Your task to perform on an android device: clear history in the chrome app Image 0: 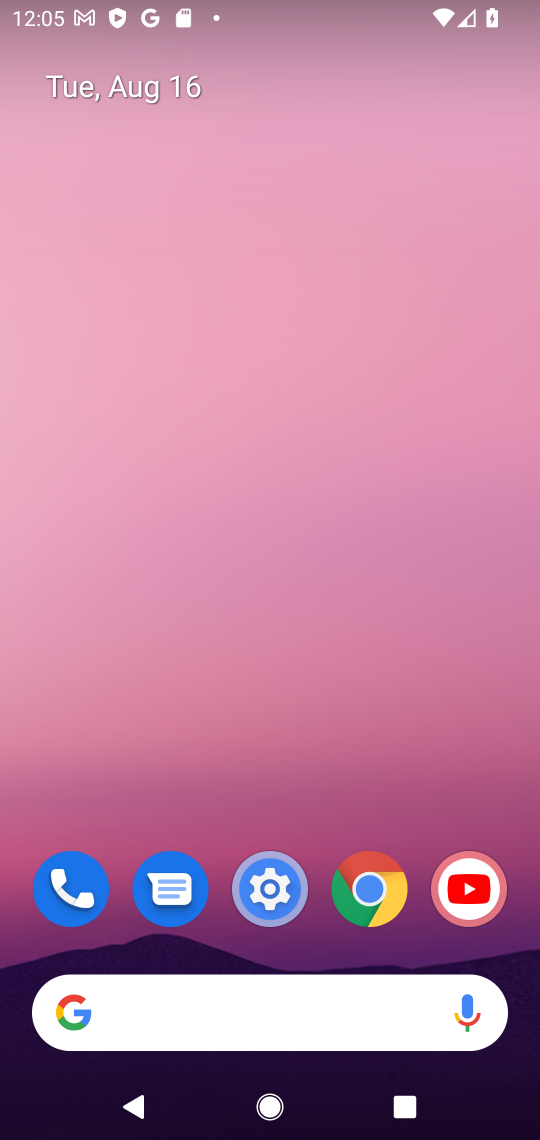
Step 0: click (86, 17)
Your task to perform on an android device: clear history in the chrome app Image 1: 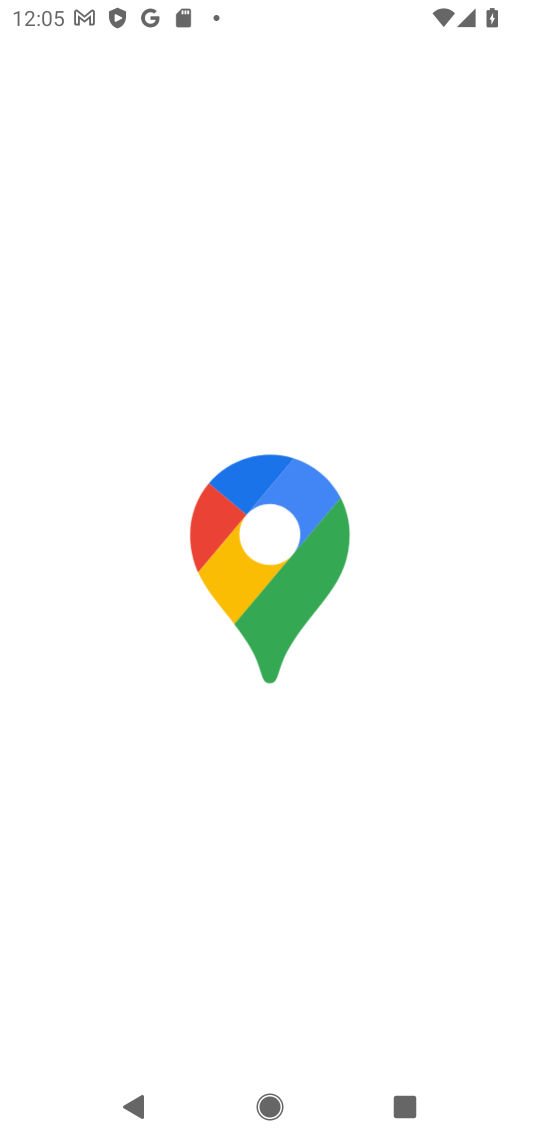
Step 1: press home button
Your task to perform on an android device: clear history in the chrome app Image 2: 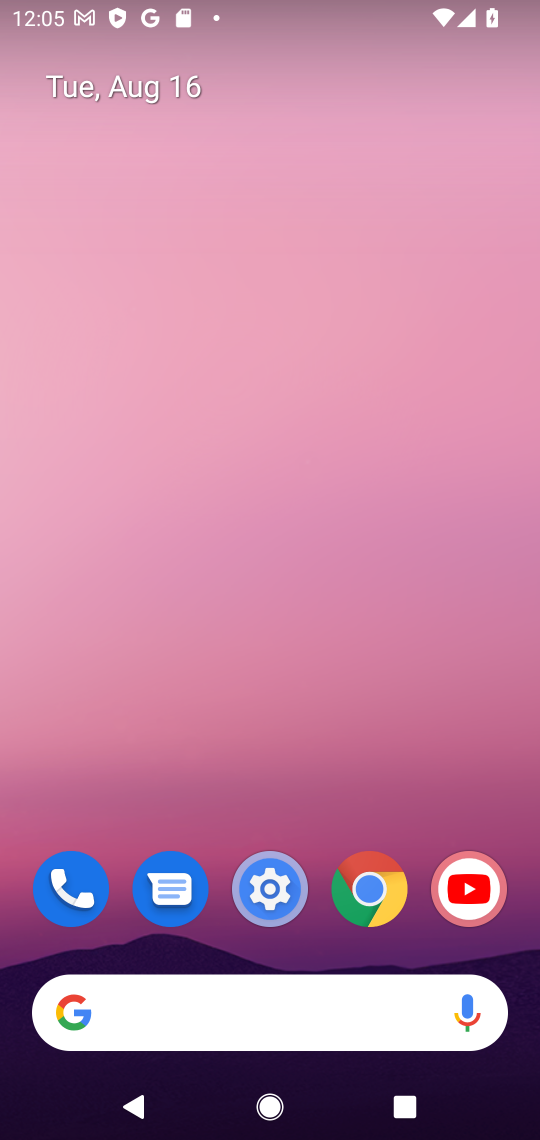
Step 2: drag from (166, 912) to (69, 1)
Your task to perform on an android device: clear history in the chrome app Image 3: 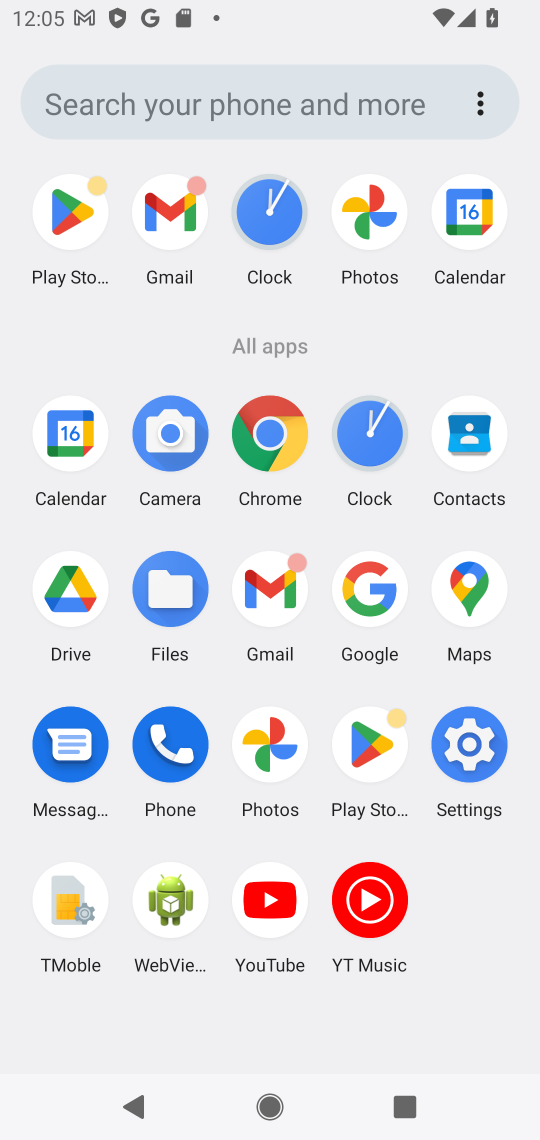
Step 3: click (266, 435)
Your task to perform on an android device: clear history in the chrome app Image 4: 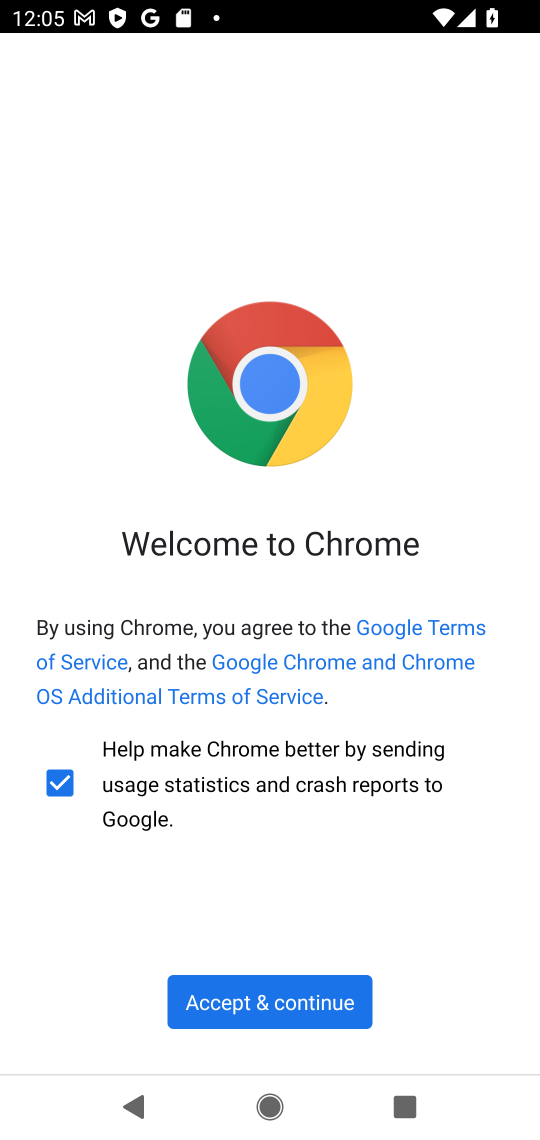
Step 4: click (324, 1003)
Your task to perform on an android device: clear history in the chrome app Image 5: 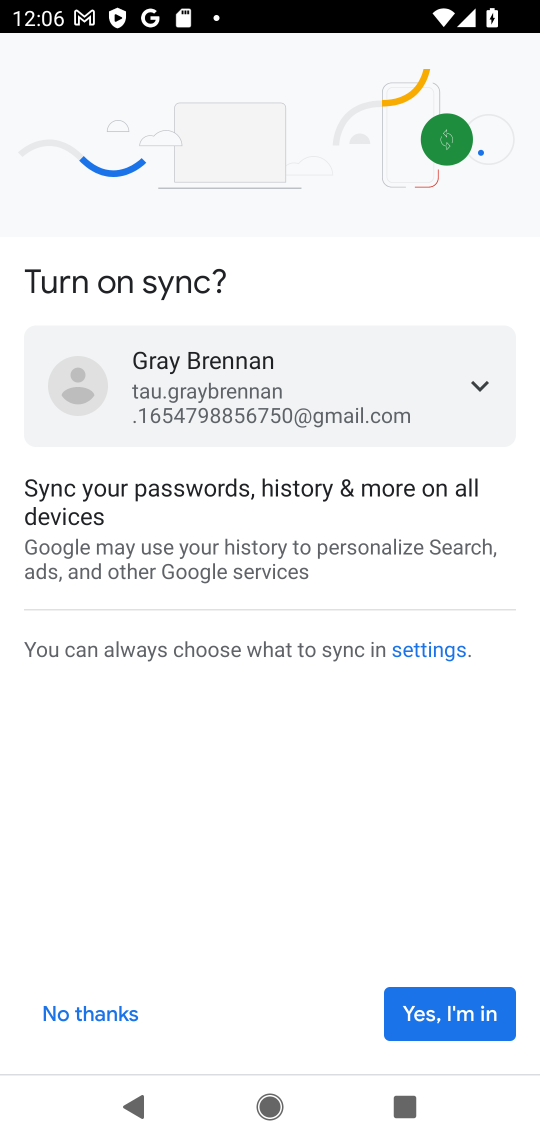
Step 5: click (118, 1016)
Your task to perform on an android device: clear history in the chrome app Image 6: 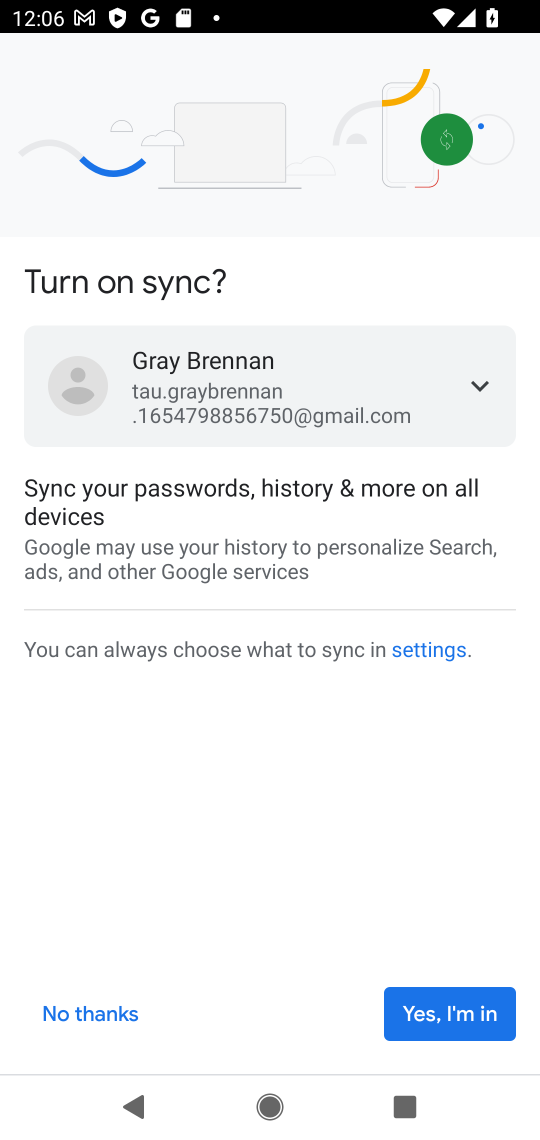
Step 6: click (124, 1017)
Your task to perform on an android device: clear history in the chrome app Image 7: 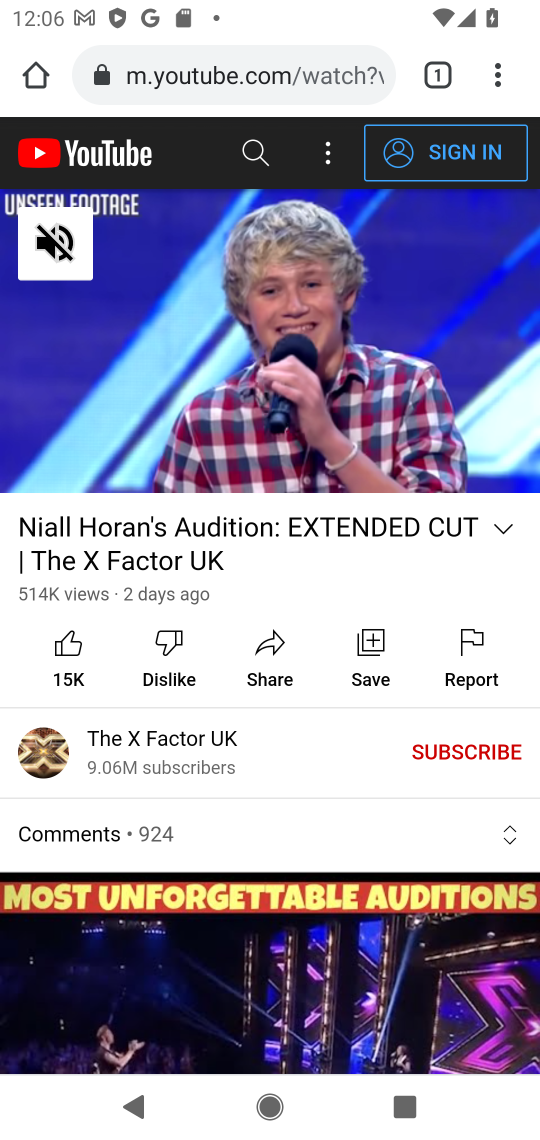
Step 7: drag from (510, 62) to (229, 312)
Your task to perform on an android device: clear history in the chrome app Image 8: 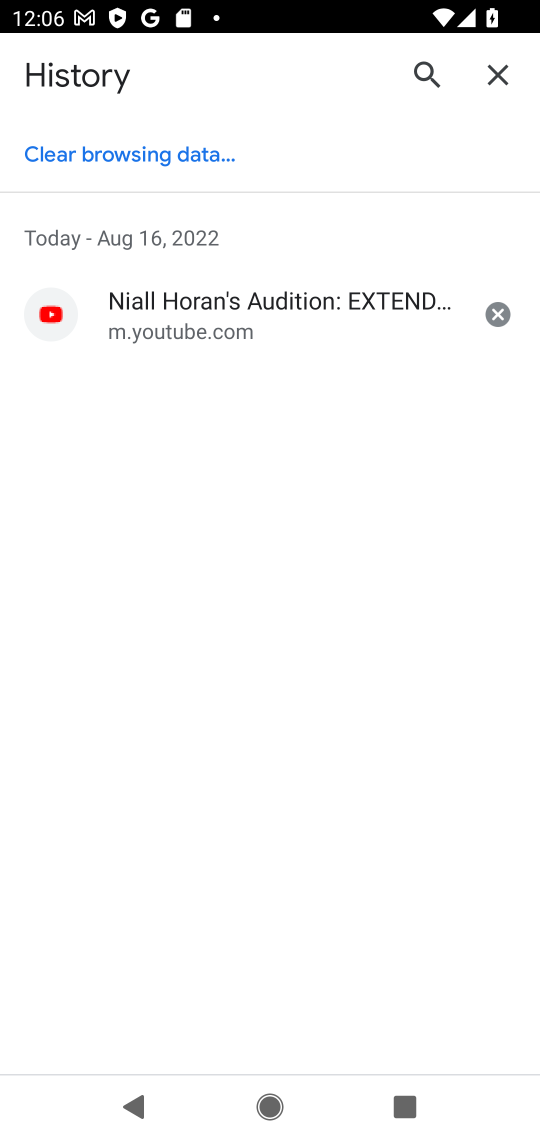
Step 8: click (78, 150)
Your task to perform on an android device: clear history in the chrome app Image 9: 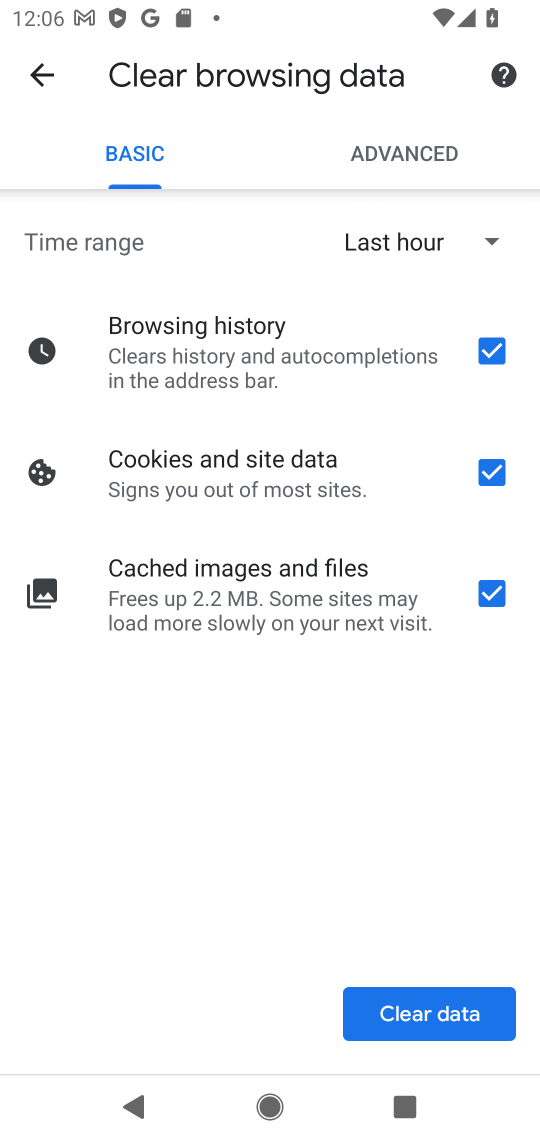
Step 9: click (485, 458)
Your task to perform on an android device: clear history in the chrome app Image 10: 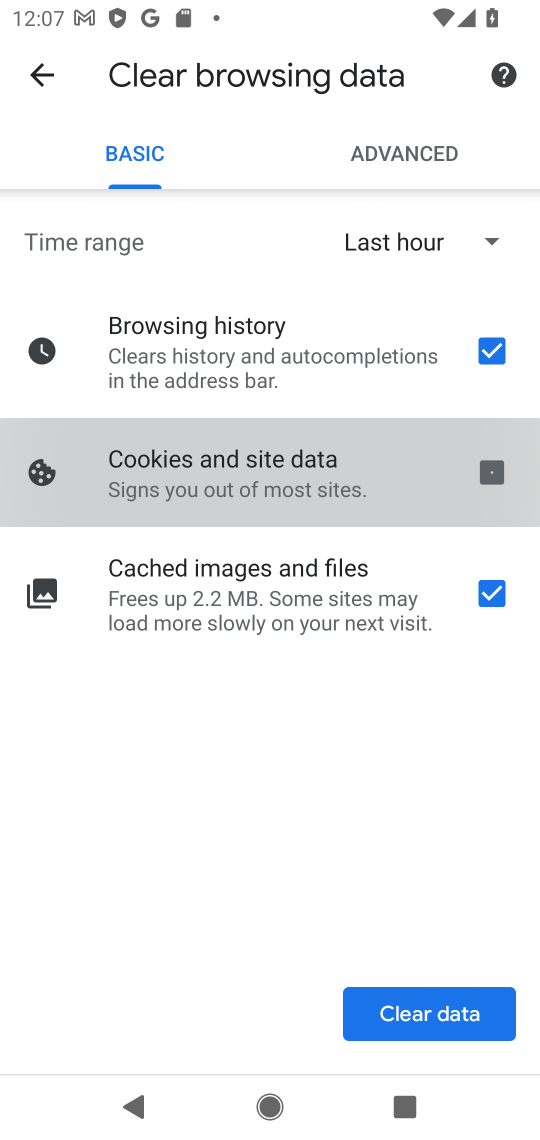
Step 10: click (492, 600)
Your task to perform on an android device: clear history in the chrome app Image 11: 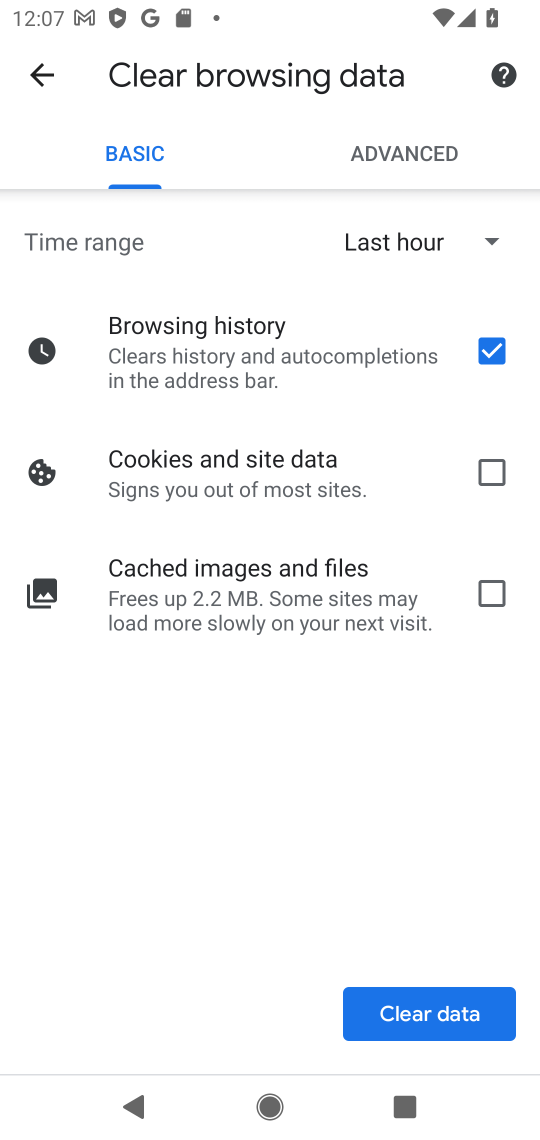
Step 11: task complete